Your task to perform on an android device: uninstall "Expedia: Hotels, Flights & Car" Image 0: 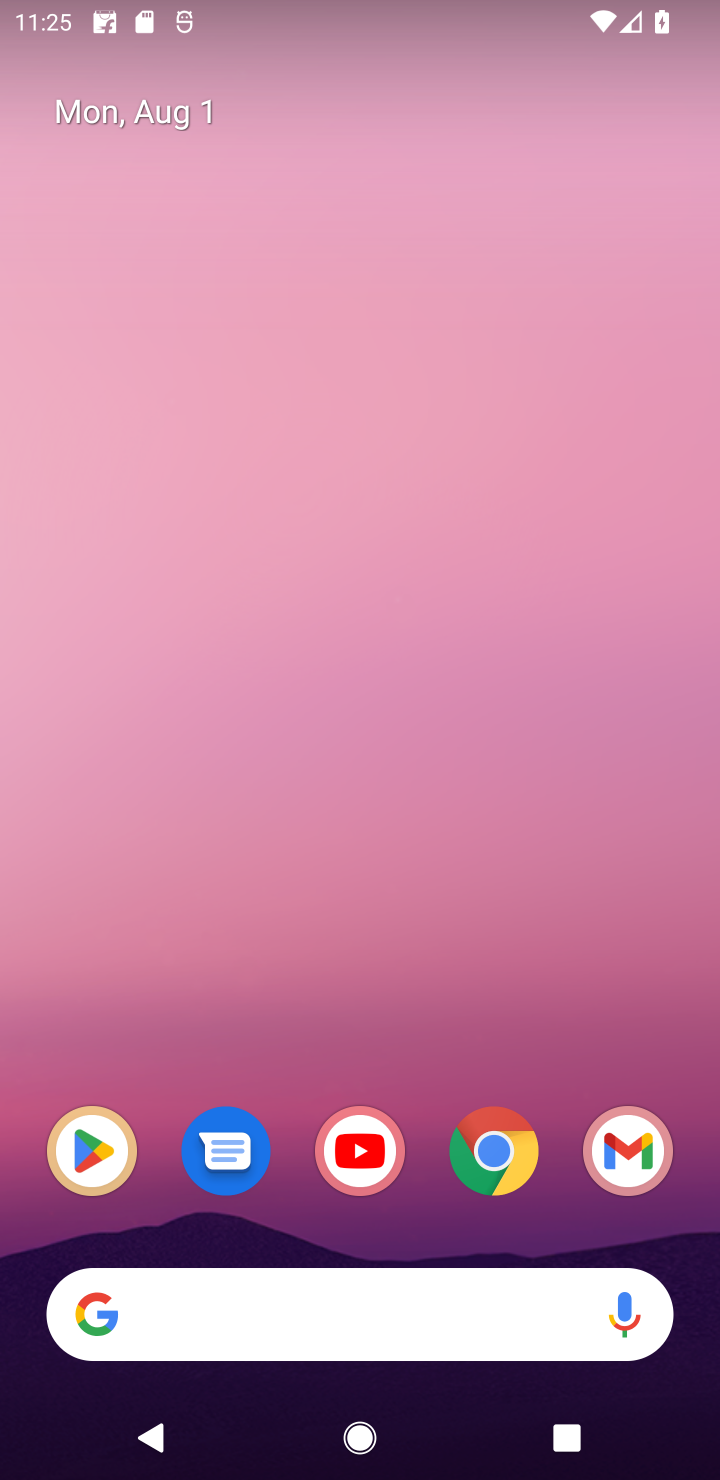
Step 0: click (73, 1173)
Your task to perform on an android device: uninstall "Expedia: Hotels, Flights & Car" Image 1: 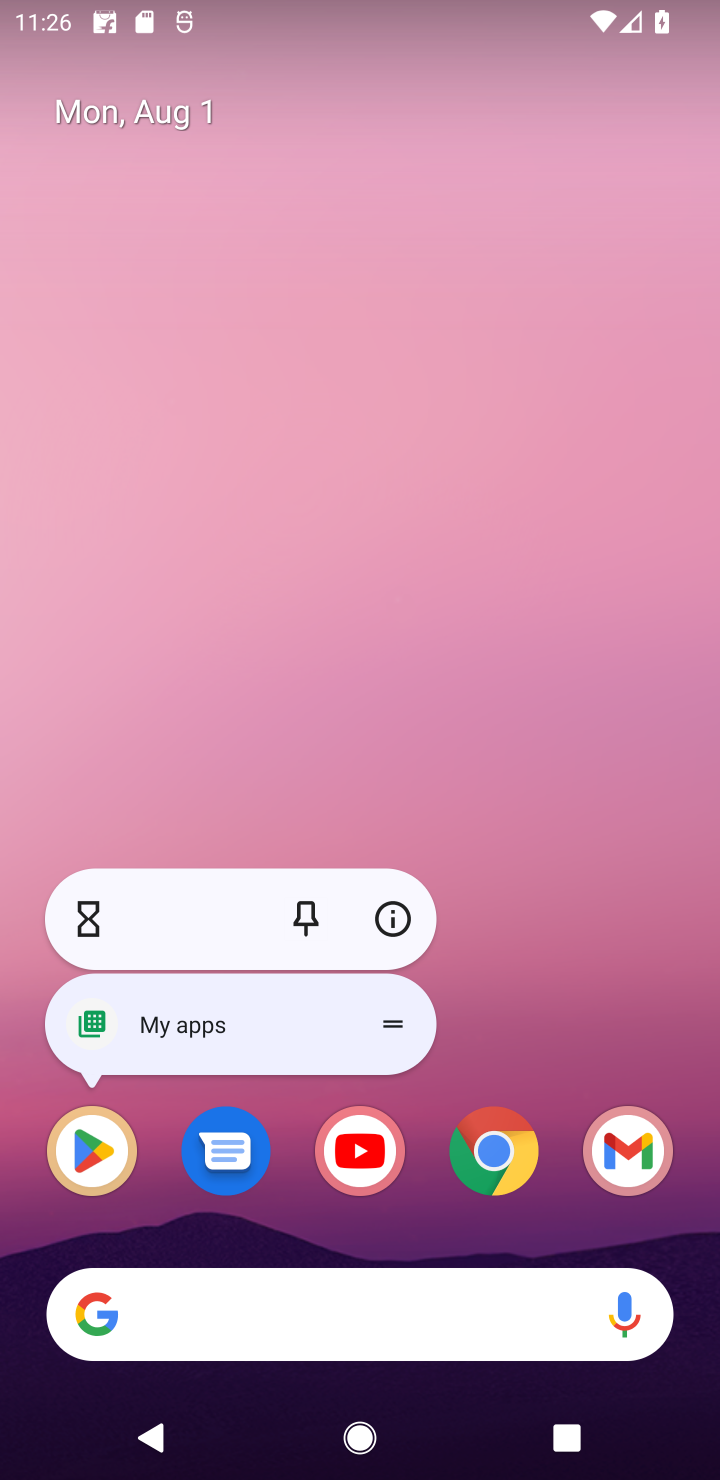
Step 1: click (73, 1173)
Your task to perform on an android device: uninstall "Expedia: Hotels, Flights & Car" Image 2: 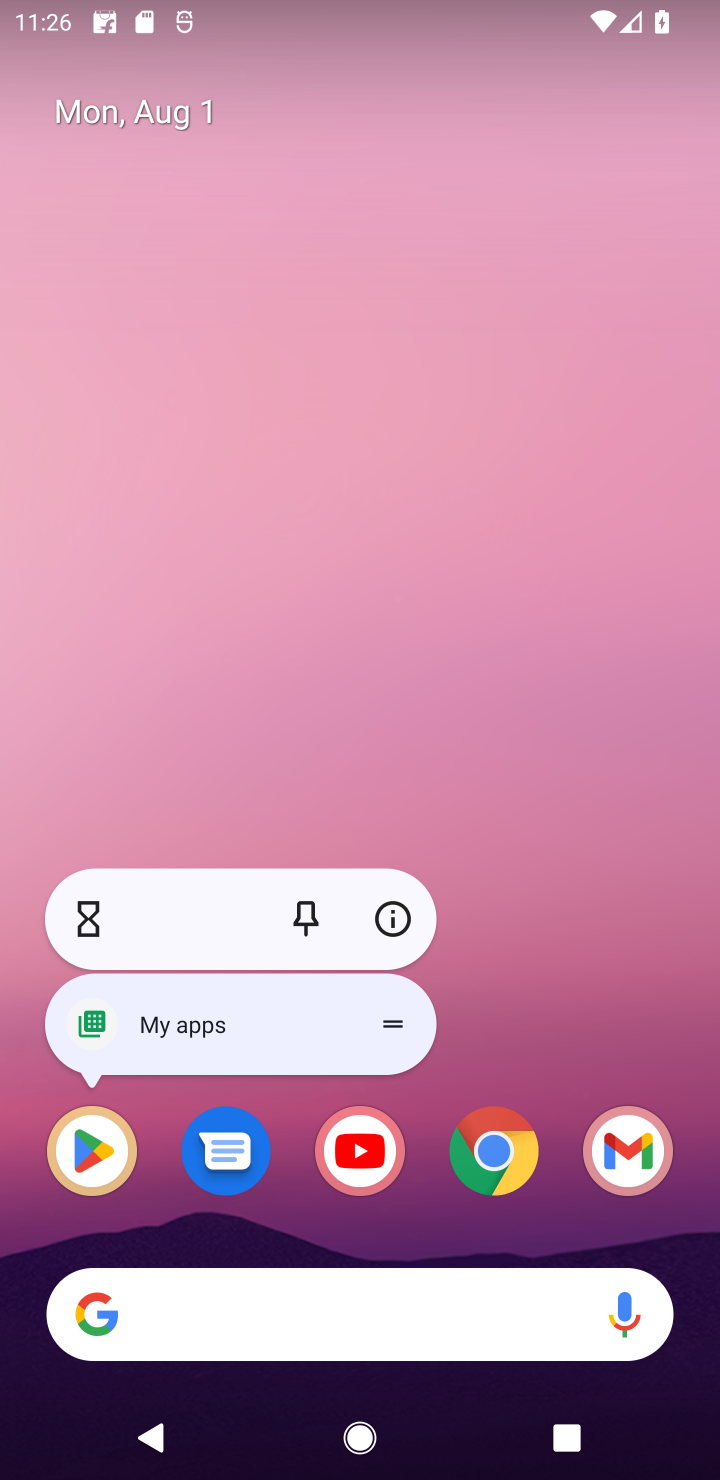
Step 2: click (73, 1173)
Your task to perform on an android device: uninstall "Expedia: Hotels, Flights & Car" Image 3: 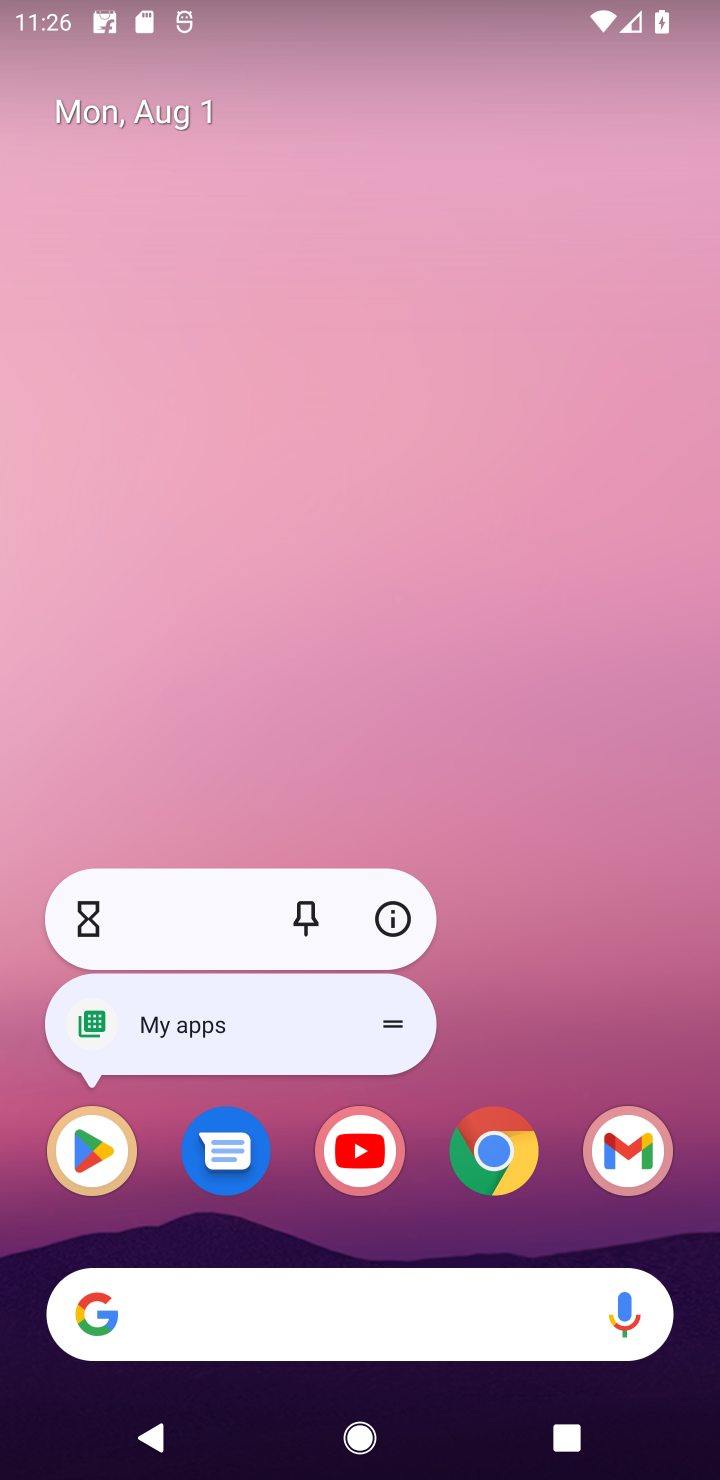
Step 3: click (73, 1173)
Your task to perform on an android device: uninstall "Expedia: Hotels, Flights & Car" Image 4: 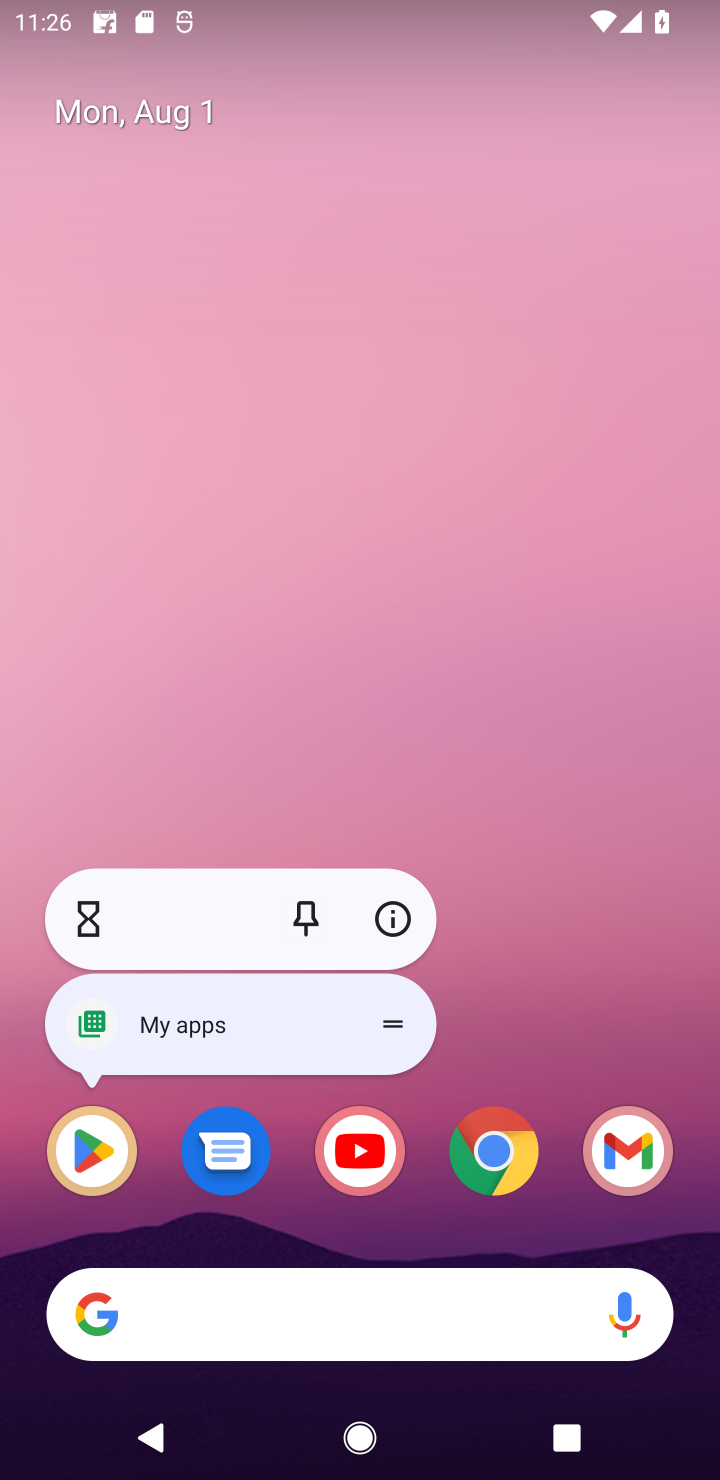
Step 4: click (121, 1126)
Your task to perform on an android device: uninstall "Expedia: Hotels, Flights & Car" Image 5: 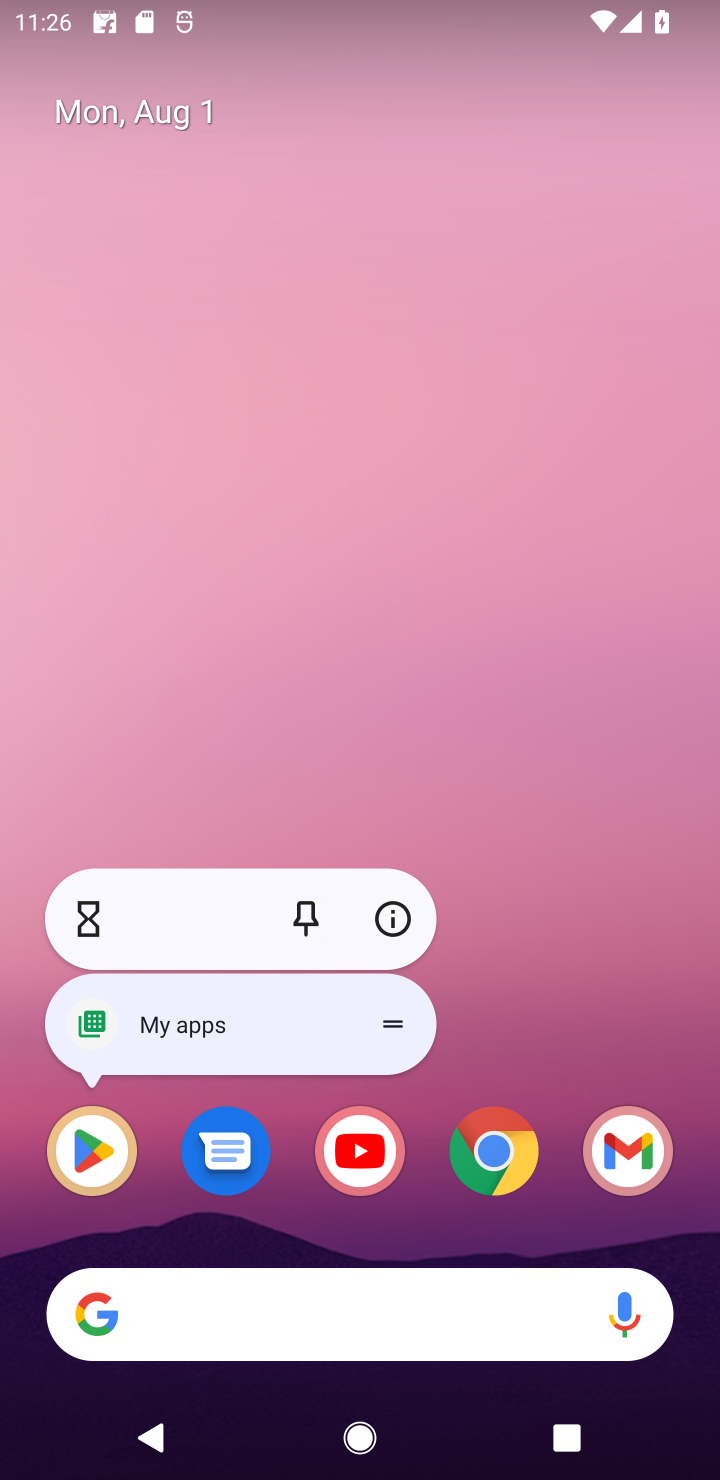
Step 5: click (101, 1135)
Your task to perform on an android device: uninstall "Expedia: Hotels, Flights & Car" Image 6: 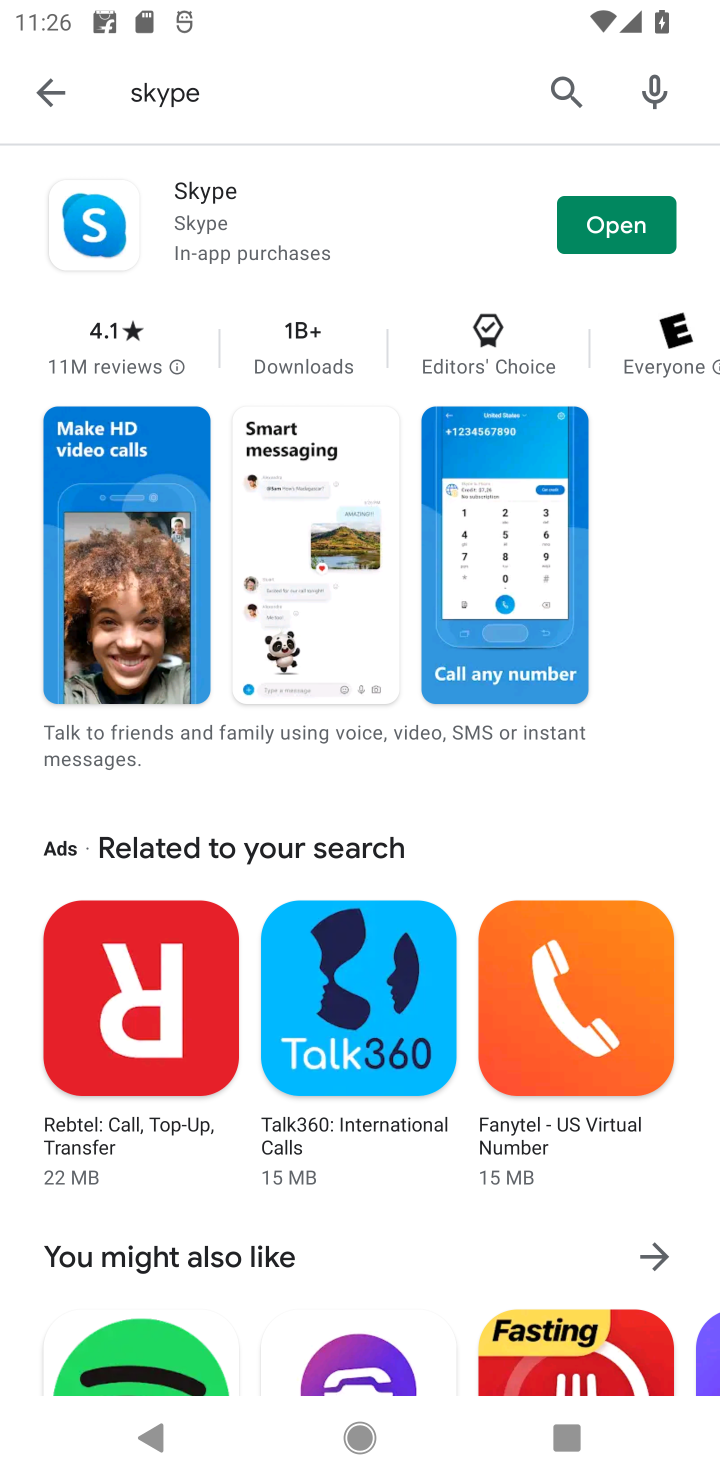
Step 6: click (552, 109)
Your task to perform on an android device: uninstall "Expedia: Hotels, Flights & Car" Image 7: 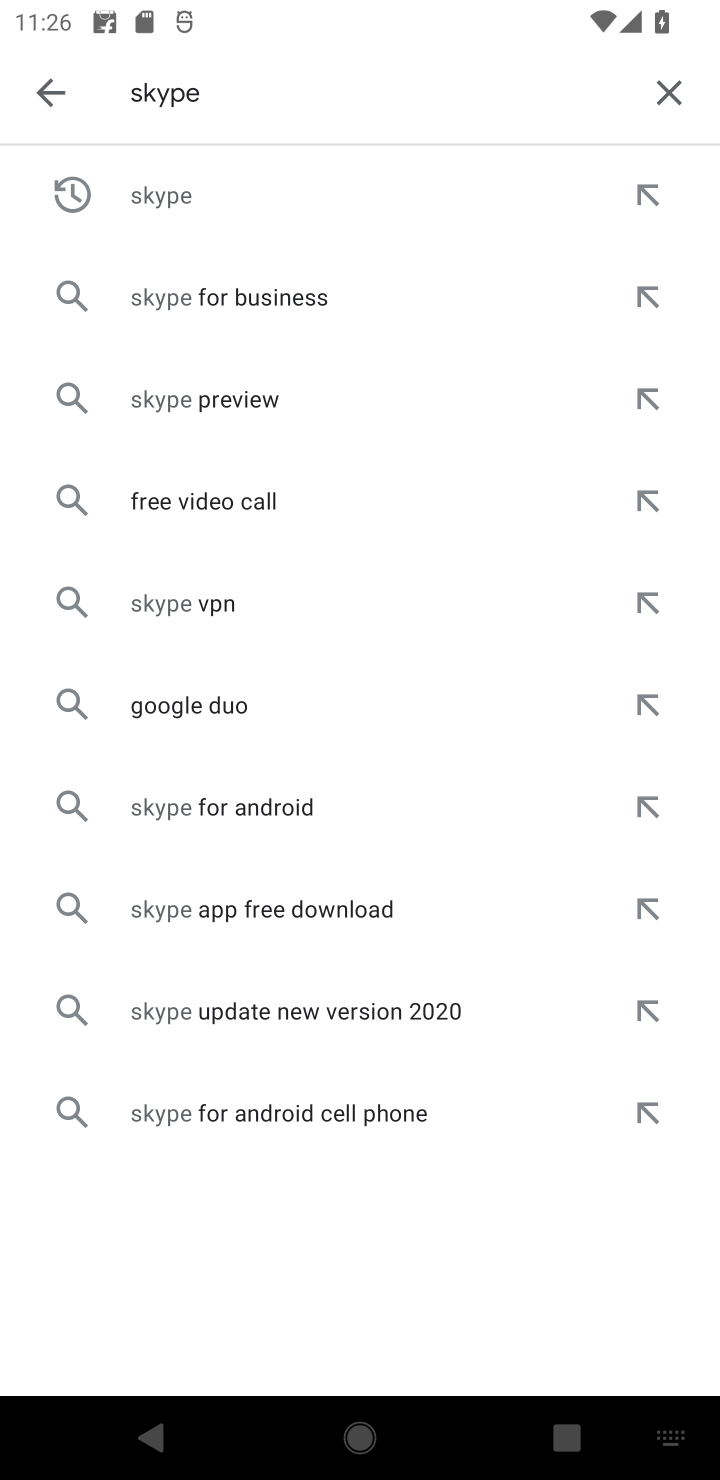
Step 7: click (673, 85)
Your task to perform on an android device: uninstall "Expedia: Hotels, Flights & Car" Image 8: 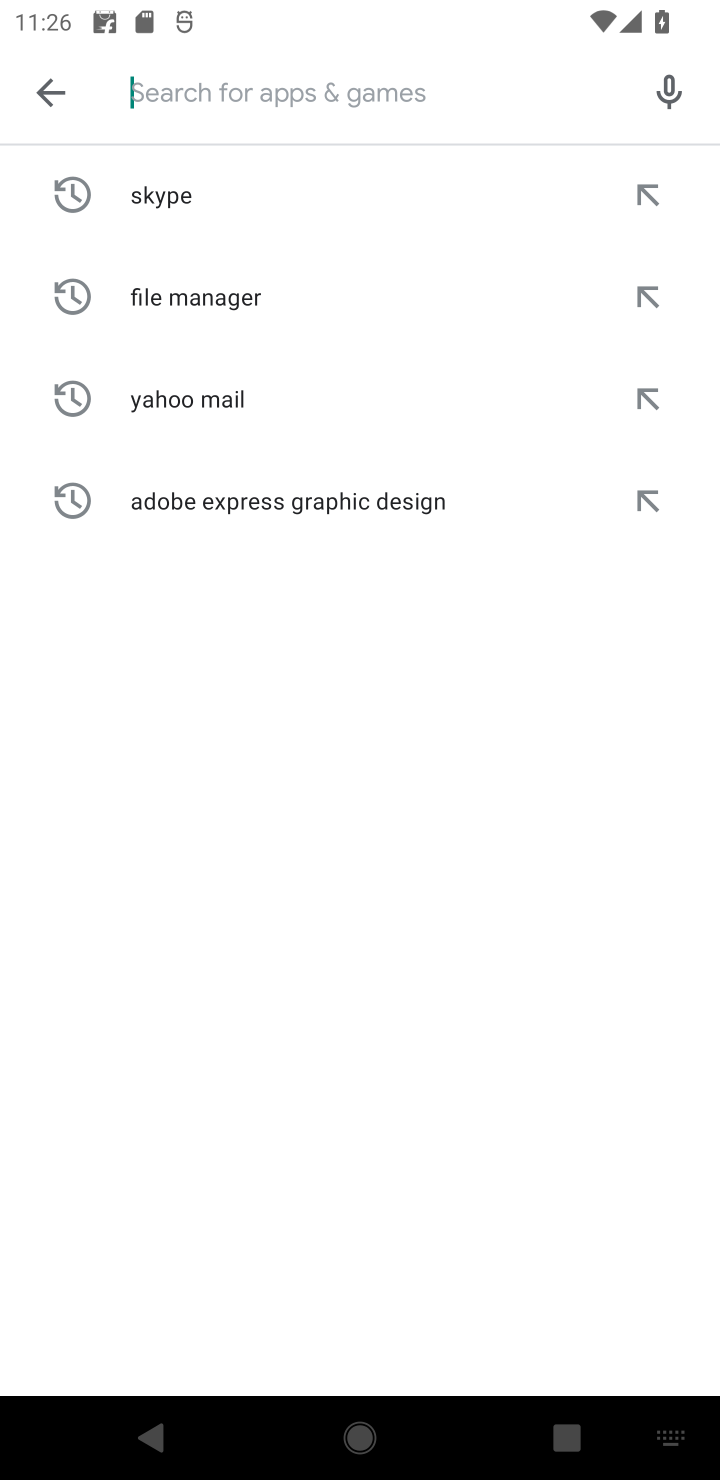
Step 8: type "Expedia: Hotels, Flights & Ca"
Your task to perform on an android device: uninstall "Expedia: Hotels, Flights & Car" Image 9: 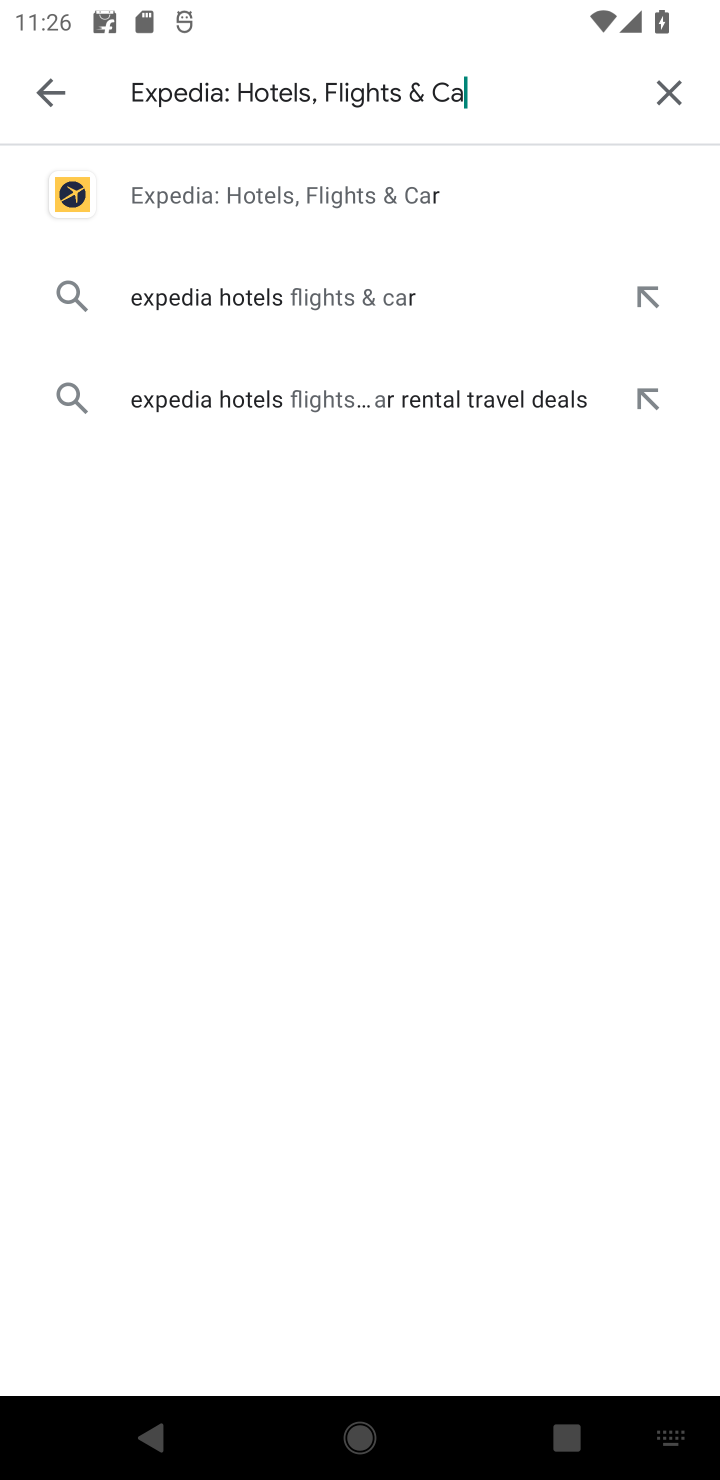
Step 9: click (353, 200)
Your task to perform on an android device: uninstall "Expedia: Hotels, Flights & Car" Image 10: 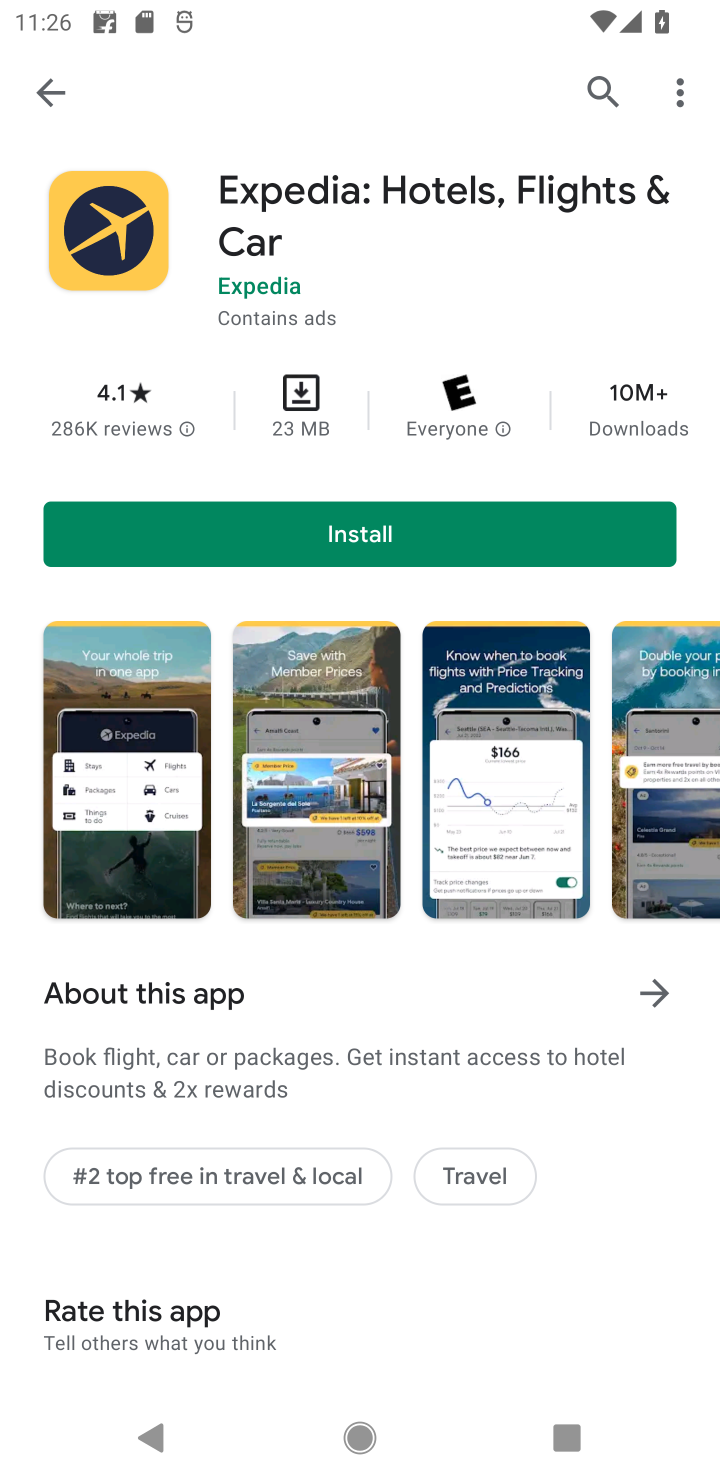
Step 10: task complete